Your task to perform on an android device: What's the weather today? Image 0: 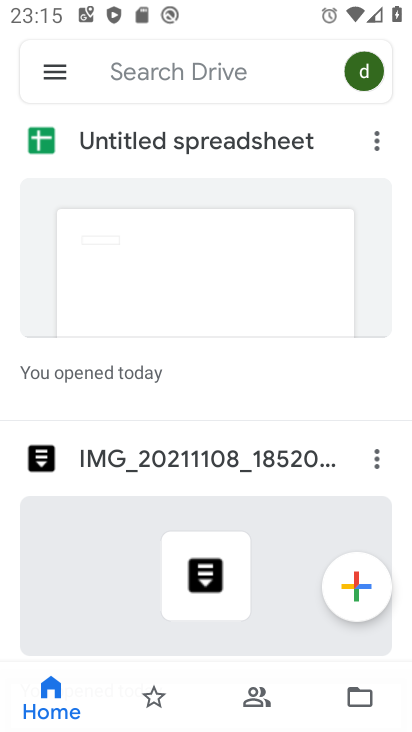
Step 0: press home button
Your task to perform on an android device: What's the weather today? Image 1: 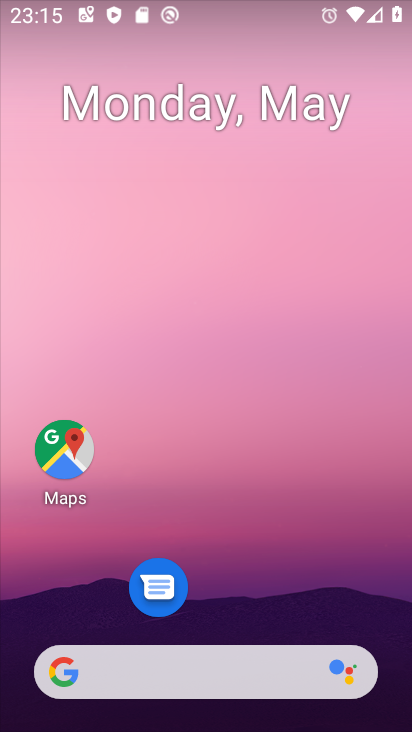
Step 1: click (172, 672)
Your task to perform on an android device: What's the weather today? Image 2: 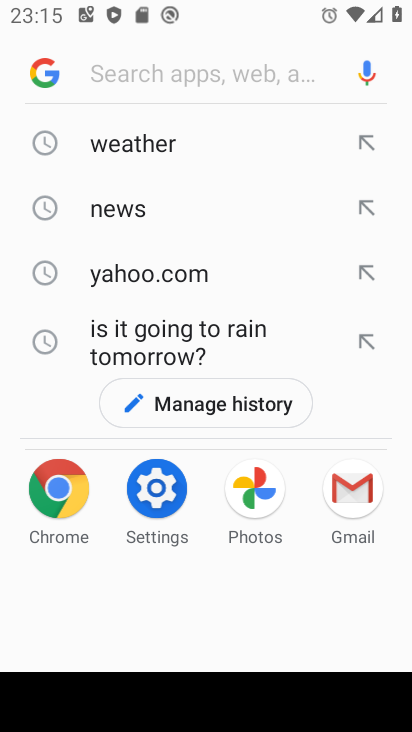
Step 2: click (115, 145)
Your task to perform on an android device: What's the weather today? Image 3: 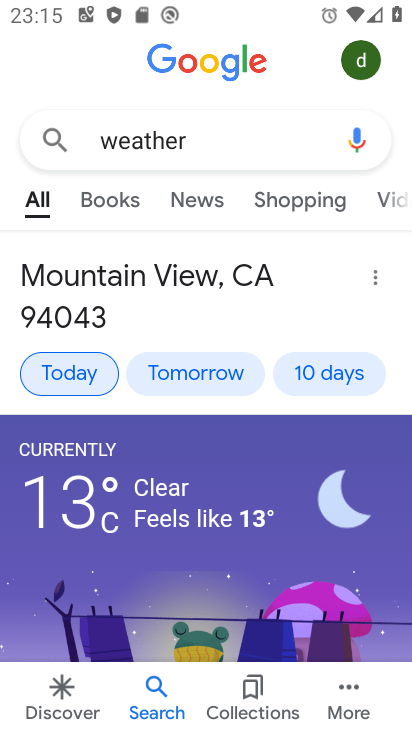
Step 3: click (71, 393)
Your task to perform on an android device: What's the weather today? Image 4: 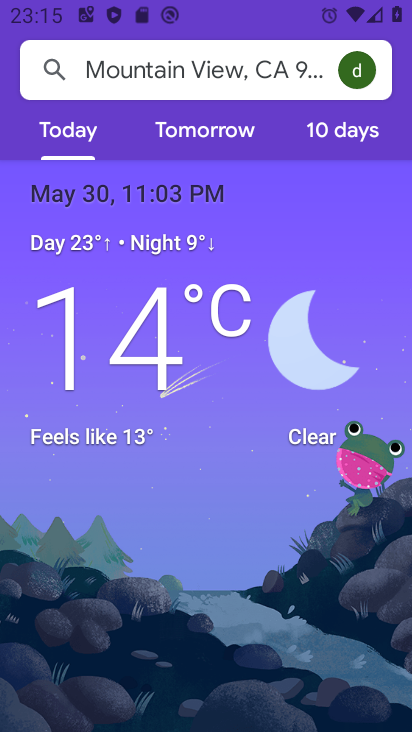
Step 4: task complete